Your task to perform on an android device: toggle improve location accuracy Image 0: 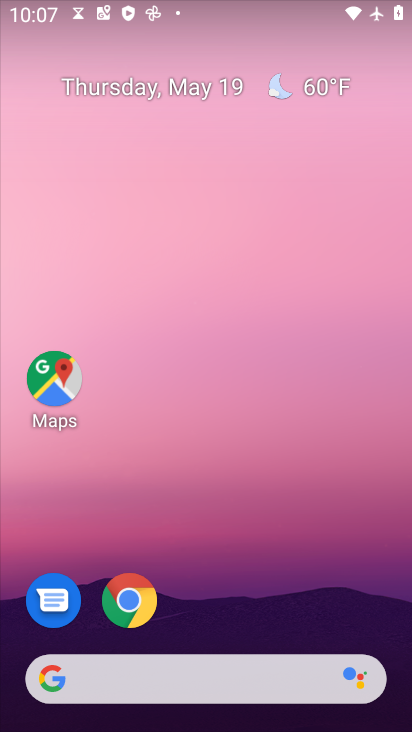
Step 0: drag from (284, 529) to (220, 9)
Your task to perform on an android device: toggle improve location accuracy Image 1: 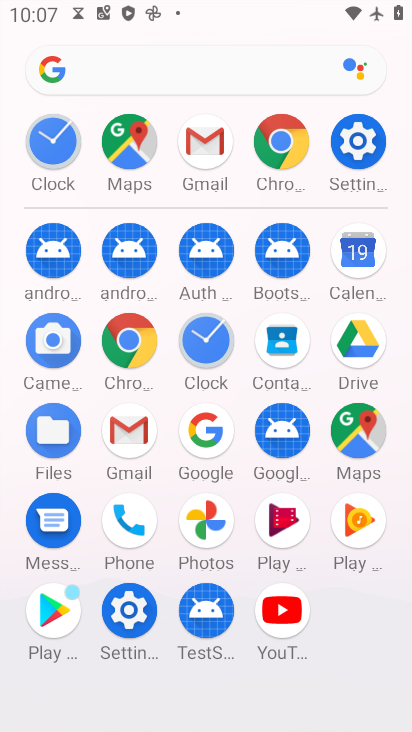
Step 1: drag from (6, 613) to (10, 332)
Your task to perform on an android device: toggle improve location accuracy Image 2: 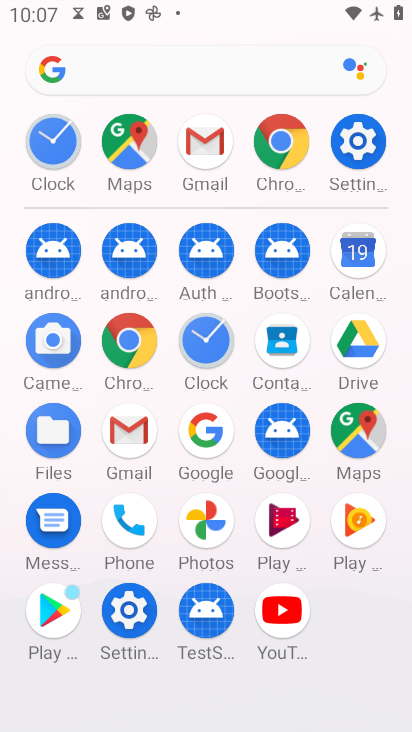
Step 2: click (128, 608)
Your task to perform on an android device: toggle improve location accuracy Image 3: 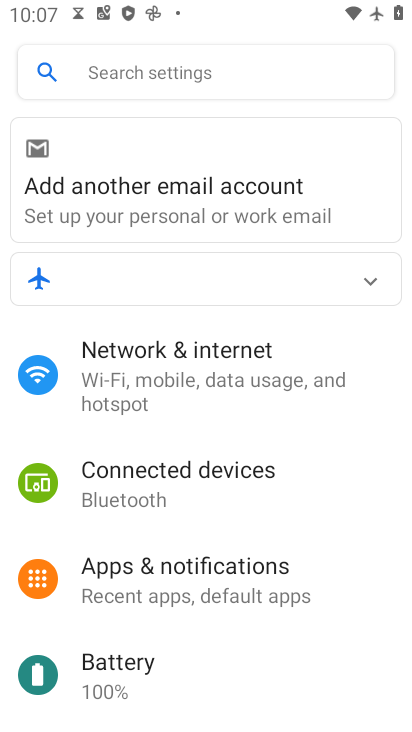
Step 3: drag from (308, 633) to (331, 231)
Your task to perform on an android device: toggle improve location accuracy Image 4: 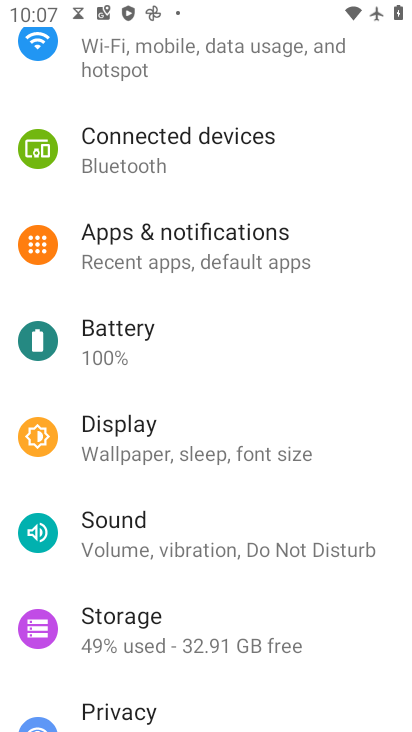
Step 4: drag from (275, 551) to (320, 140)
Your task to perform on an android device: toggle improve location accuracy Image 5: 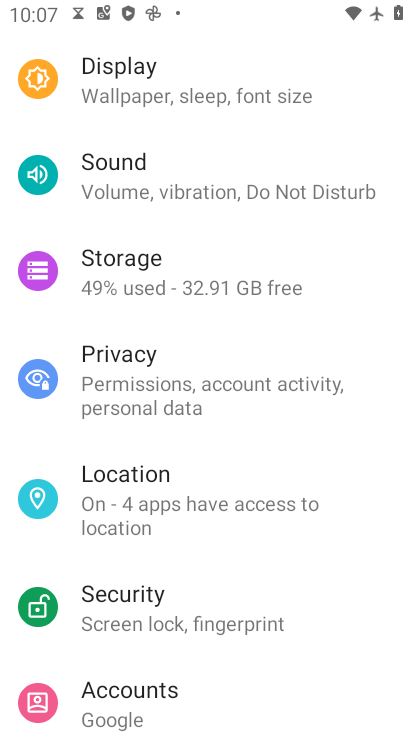
Step 5: click (162, 495)
Your task to perform on an android device: toggle improve location accuracy Image 6: 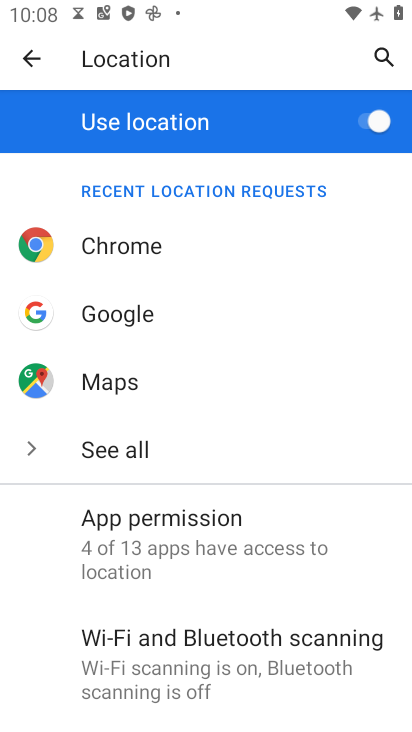
Step 6: drag from (287, 556) to (272, 171)
Your task to perform on an android device: toggle improve location accuracy Image 7: 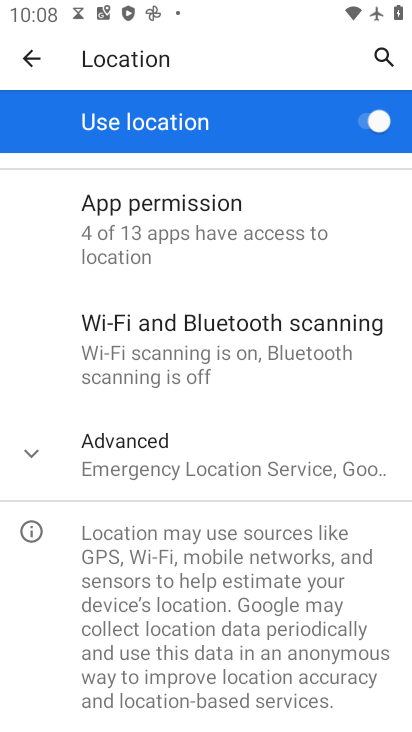
Step 7: click (204, 468)
Your task to perform on an android device: toggle improve location accuracy Image 8: 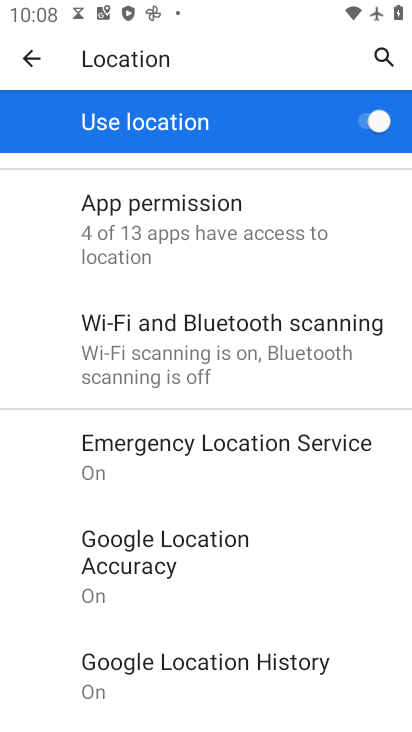
Step 8: click (203, 556)
Your task to perform on an android device: toggle improve location accuracy Image 9: 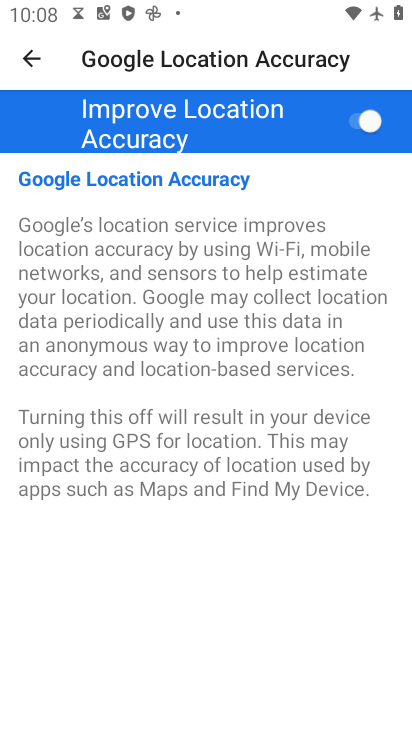
Step 9: click (362, 111)
Your task to perform on an android device: toggle improve location accuracy Image 10: 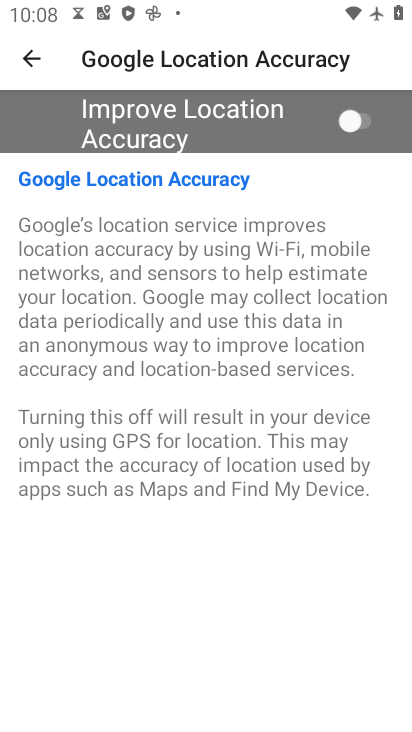
Step 10: task complete